Your task to perform on an android device: turn on showing notifications on the lock screen Image 0: 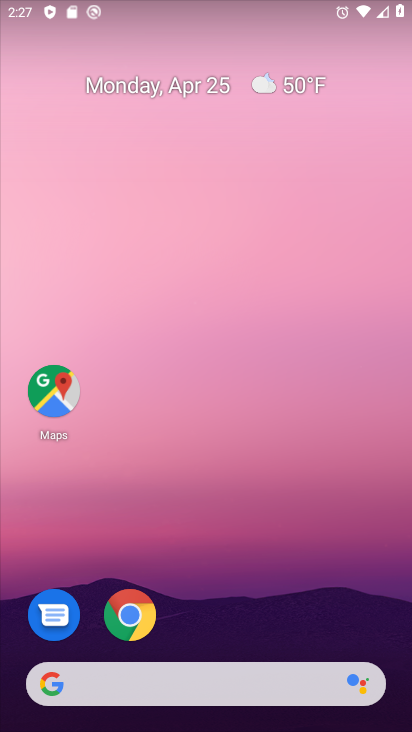
Step 0: press back button
Your task to perform on an android device: turn on showing notifications on the lock screen Image 1: 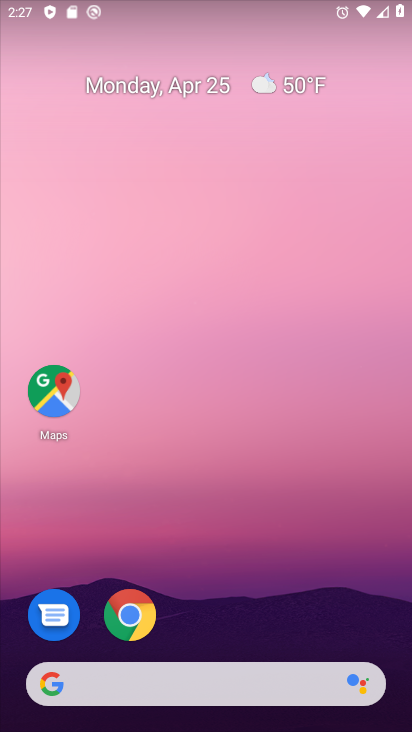
Step 1: drag from (229, 575) to (219, 52)
Your task to perform on an android device: turn on showing notifications on the lock screen Image 2: 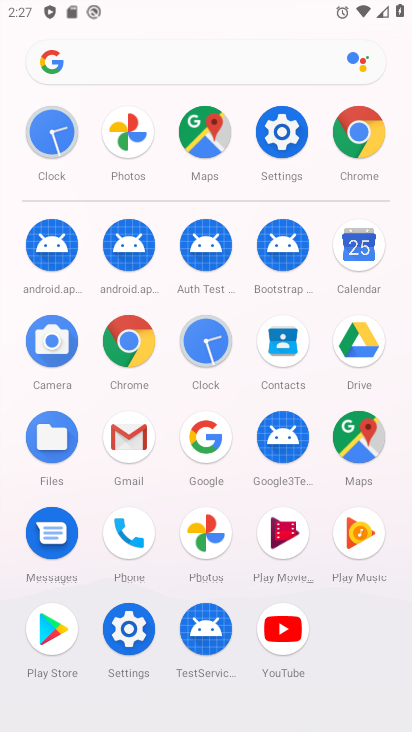
Step 2: click (285, 131)
Your task to perform on an android device: turn on showing notifications on the lock screen Image 3: 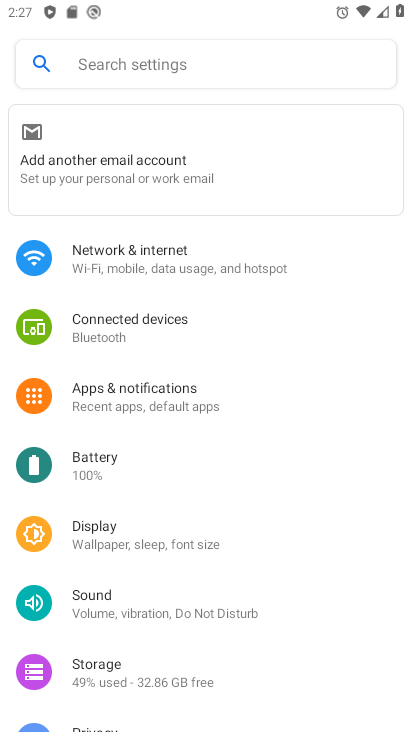
Step 3: click (90, 391)
Your task to perform on an android device: turn on showing notifications on the lock screen Image 4: 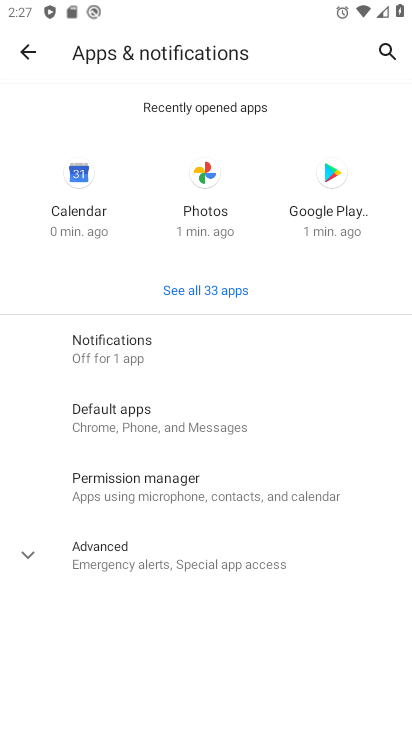
Step 4: click (121, 340)
Your task to perform on an android device: turn on showing notifications on the lock screen Image 5: 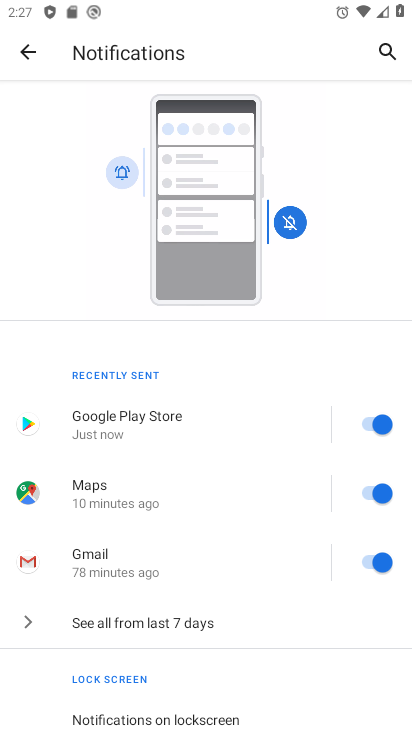
Step 5: drag from (152, 696) to (176, 514)
Your task to perform on an android device: turn on showing notifications on the lock screen Image 6: 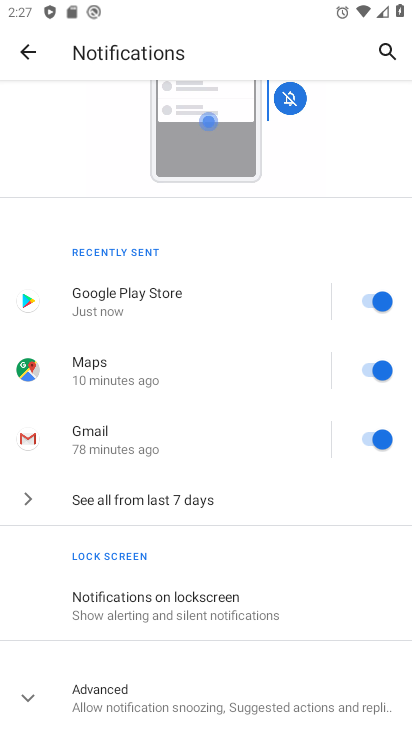
Step 6: click (150, 590)
Your task to perform on an android device: turn on showing notifications on the lock screen Image 7: 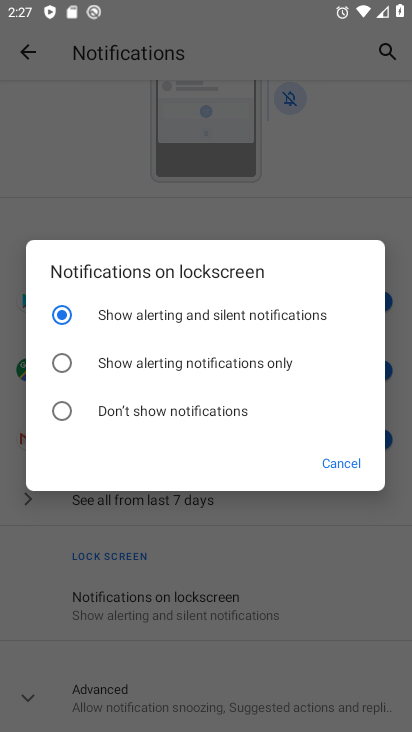
Step 7: click (64, 316)
Your task to perform on an android device: turn on showing notifications on the lock screen Image 8: 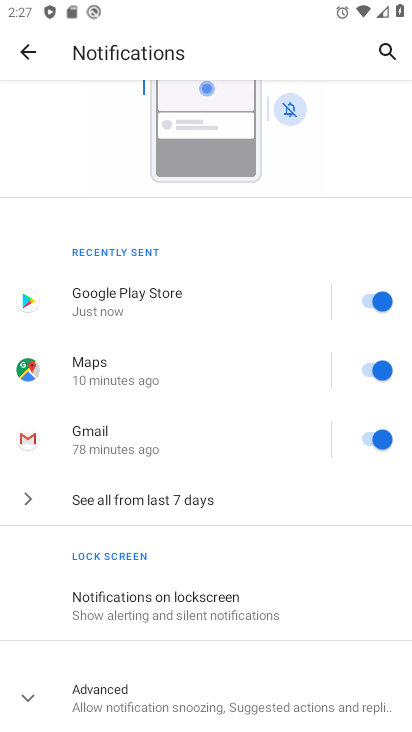
Step 8: task complete